Your task to perform on an android device: Add "lg ultragear" to the cart on bestbuy, then select checkout. Image 0: 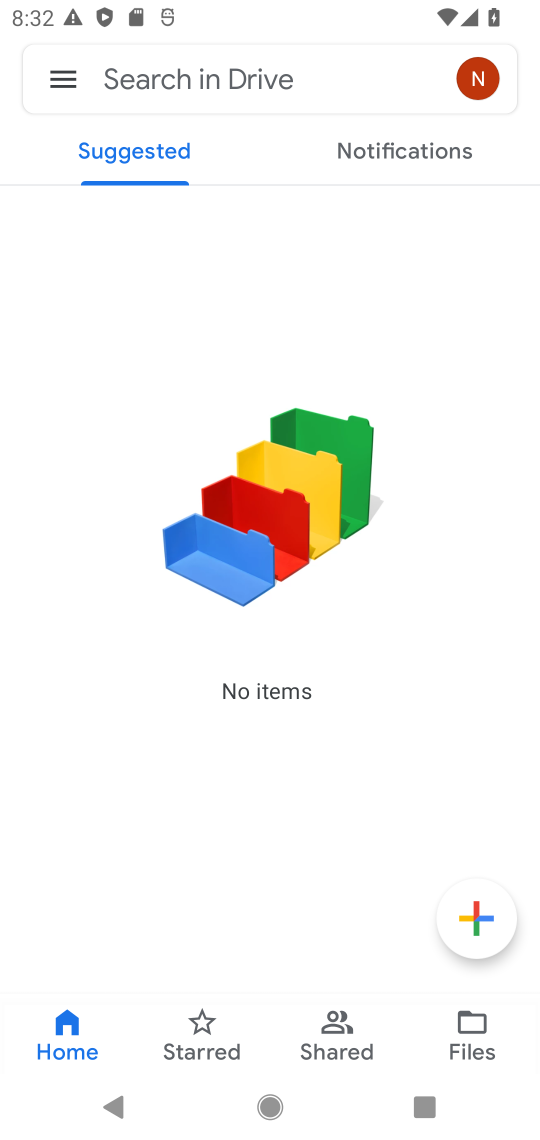
Step 0: press home button
Your task to perform on an android device: Add "lg ultragear" to the cart on bestbuy, then select checkout. Image 1: 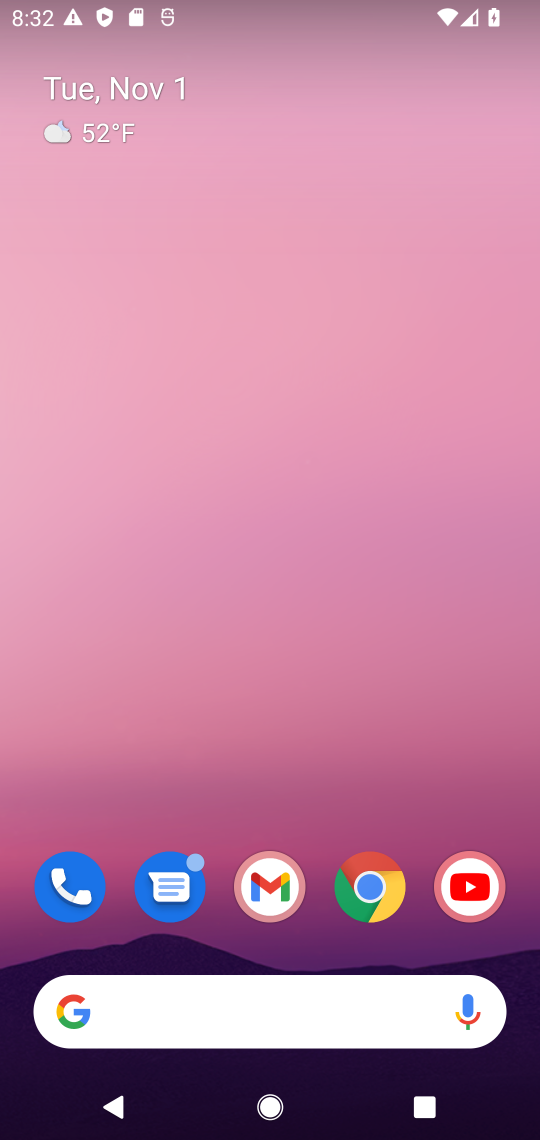
Step 1: drag from (177, 970) to (169, 440)
Your task to perform on an android device: Add "lg ultragear" to the cart on bestbuy, then select checkout. Image 2: 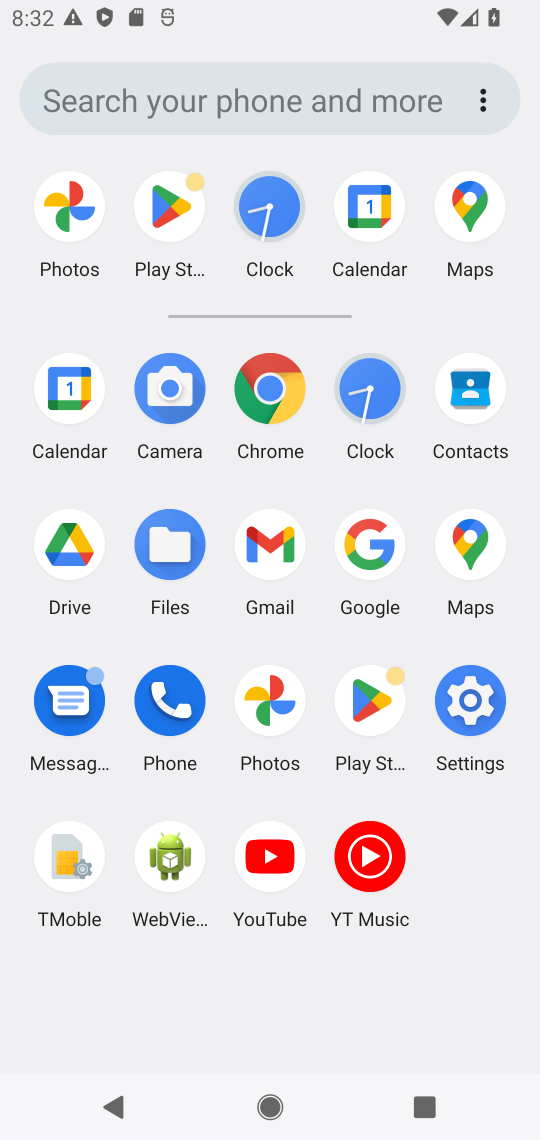
Step 2: click (360, 535)
Your task to perform on an android device: Add "lg ultragear" to the cart on bestbuy, then select checkout. Image 3: 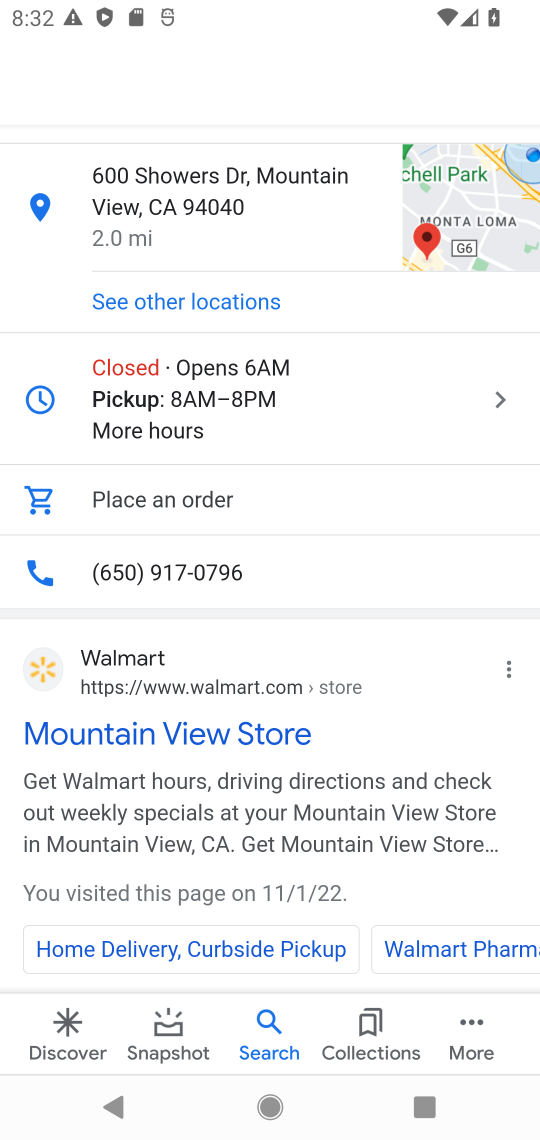
Step 3: drag from (180, 418) to (169, 1025)
Your task to perform on an android device: Add "lg ultragear" to the cart on bestbuy, then select checkout. Image 4: 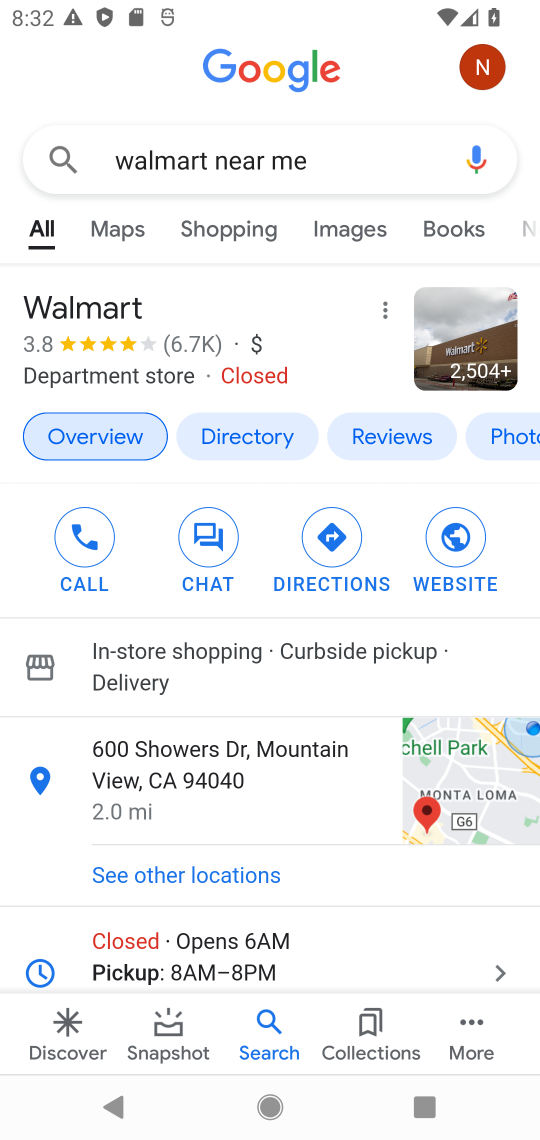
Step 4: click (198, 162)
Your task to perform on an android device: Add "lg ultragear" to the cart on bestbuy, then select checkout. Image 5: 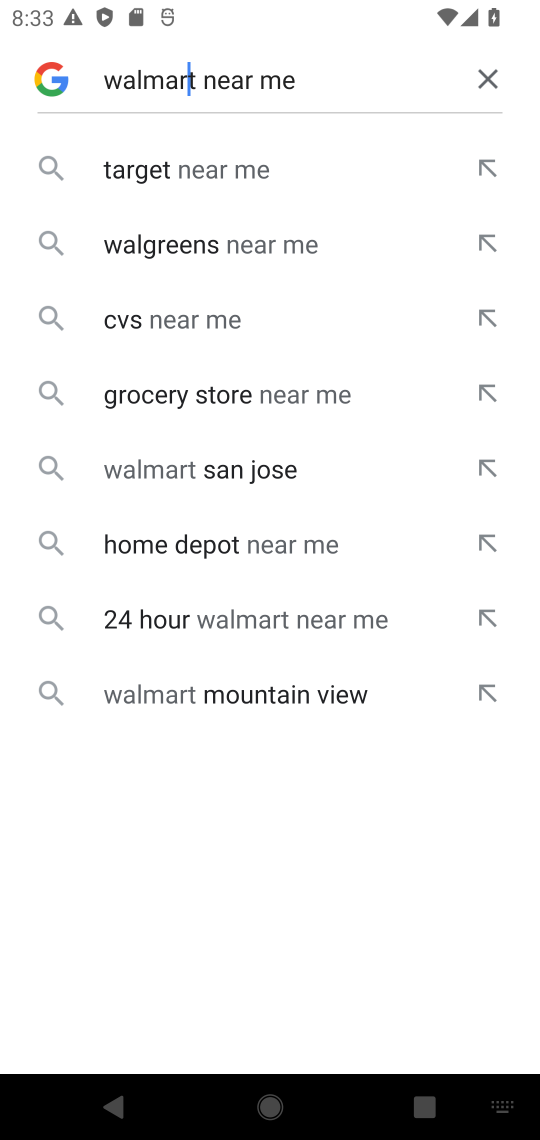
Step 5: click (475, 81)
Your task to perform on an android device: Add "lg ultragear" to the cart on bestbuy, then select checkout. Image 6: 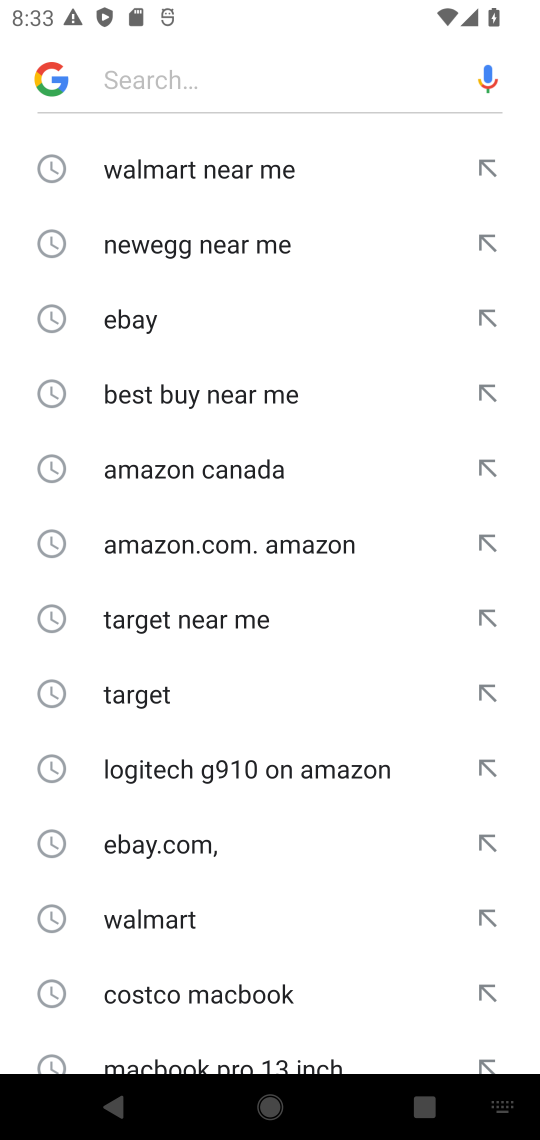
Step 6: click (204, 67)
Your task to perform on an android device: Add "lg ultragear" to the cart on bestbuy, then select checkout. Image 7: 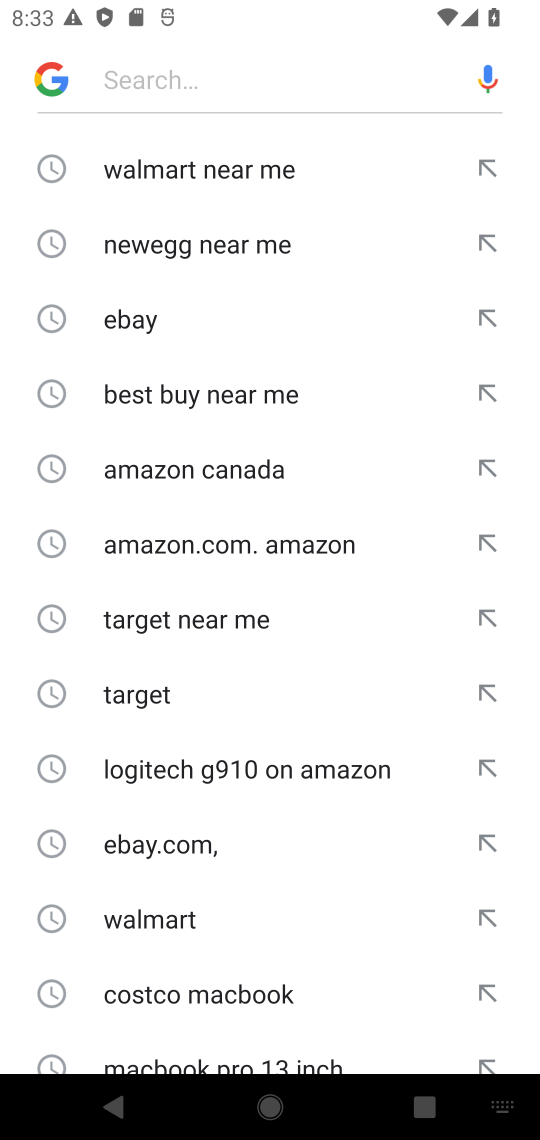
Step 7: type "bestbuy "
Your task to perform on an android device: Add "lg ultragear" to the cart on bestbuy, then select checkout. Image 8: 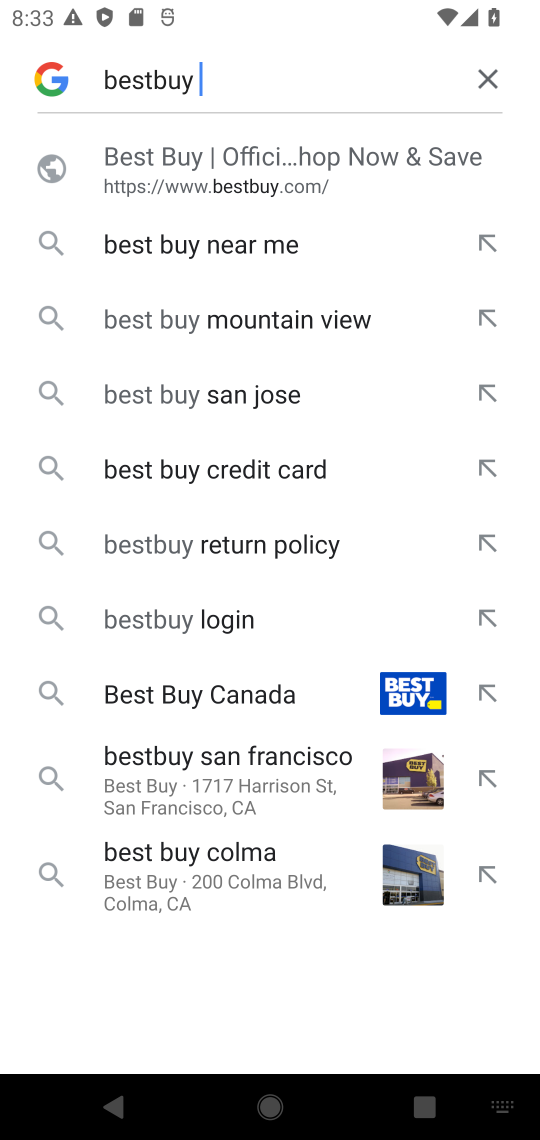
Step 8: click (235, 141)
Your task to perform on an android device: Add "lg ultragear" to the cart on bestbuy, then select checkout. Image 9: 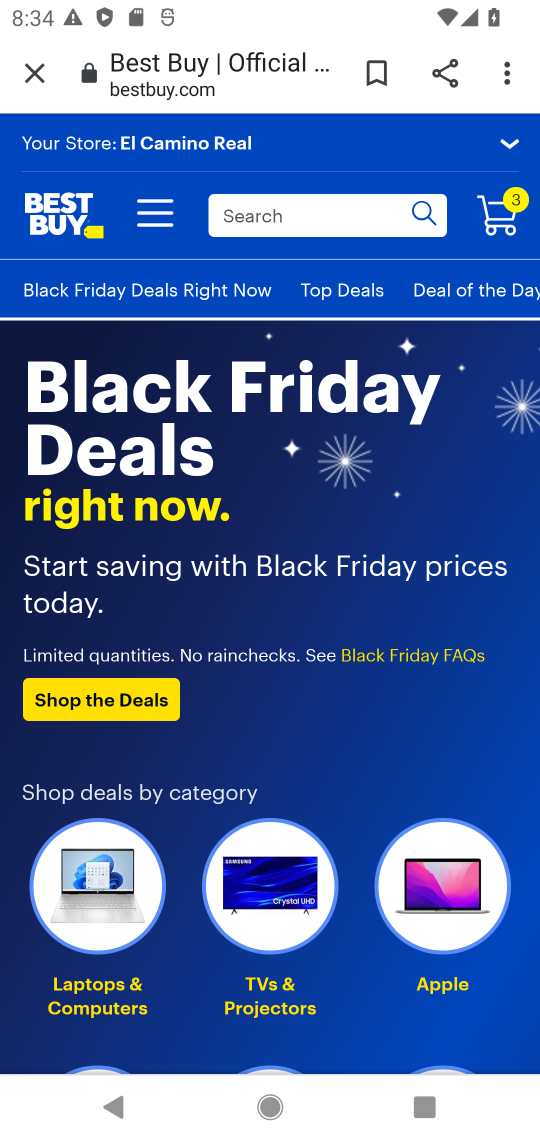
Step 9: click (260, 214)
Your task to perform on an android device: Add "lg ultragear" to the cart on bestbuy, then select checkout. Image 10: 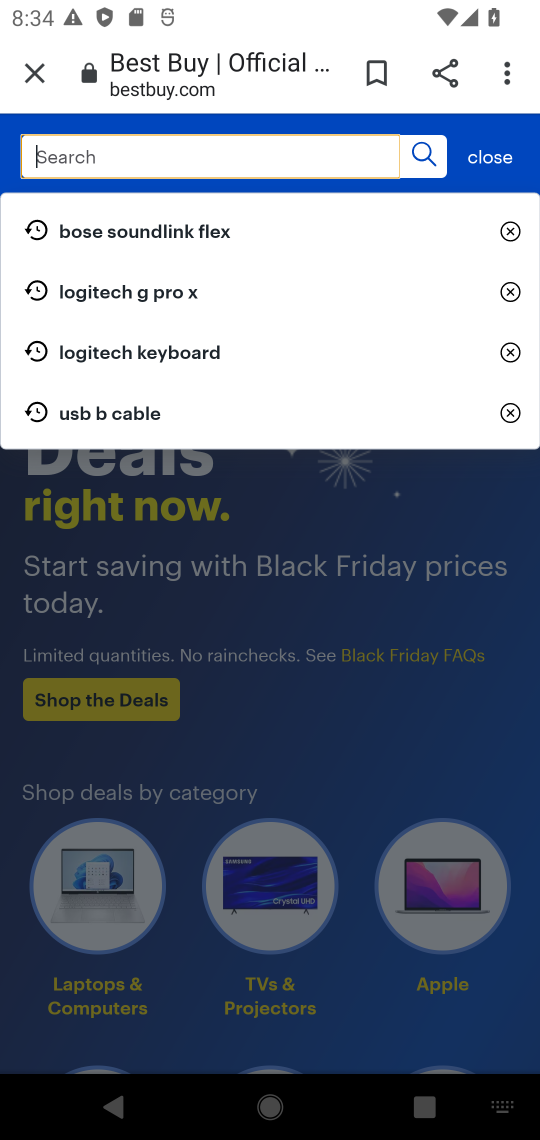
Step 10: click (195, 144)
Your task to perform on an android device: Add "lg ultragear" to the cart on bestbuy, then select checkout. Image 11: 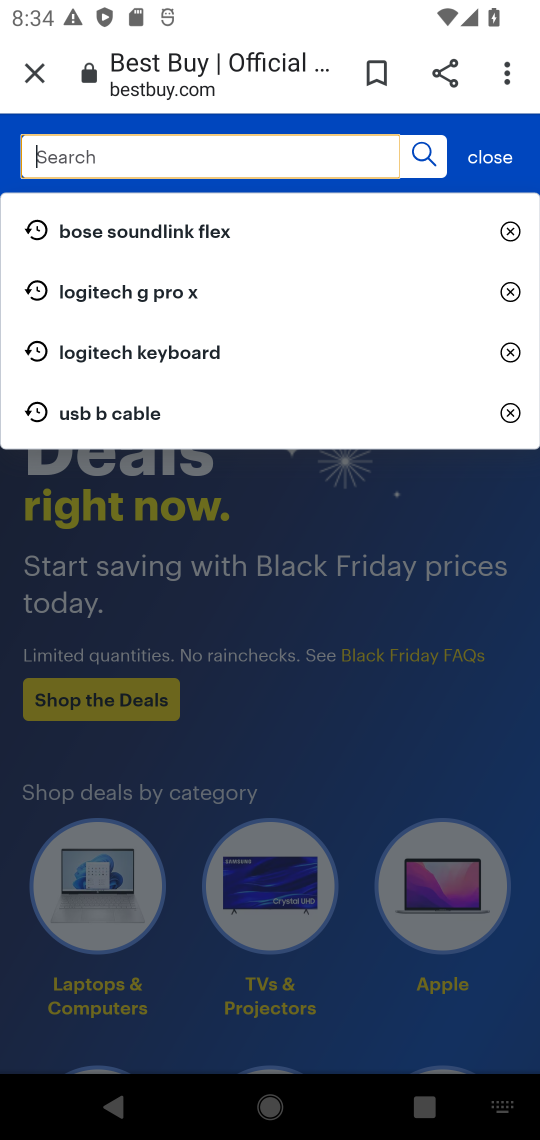
Step 11: type "lg ultragear "
Your task to perform on an android device: Add "lg ultragear" to the cart on bestbuy, then select checkout. Image 12: 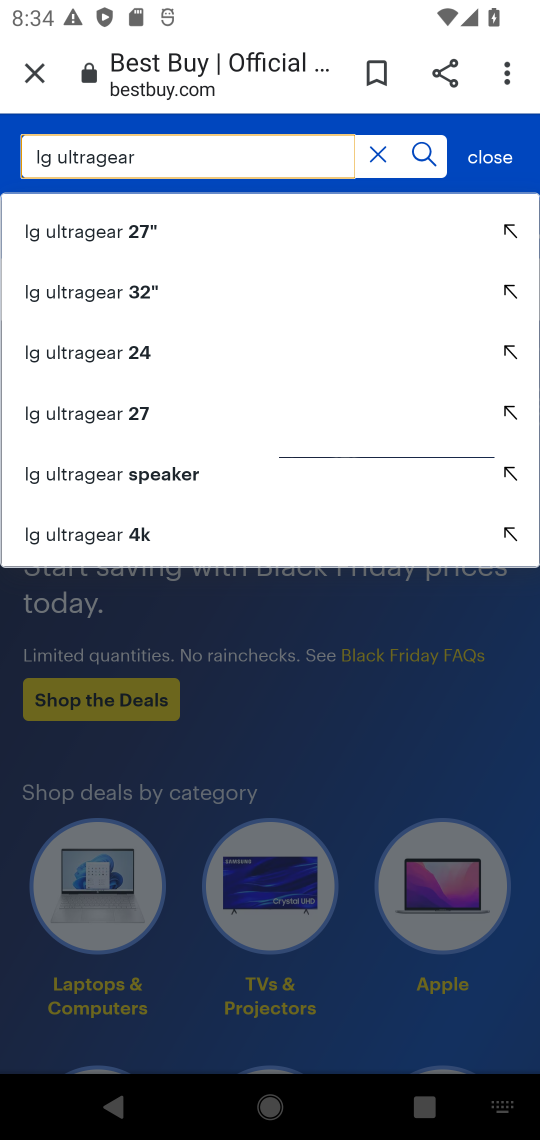
Step 12: click (119, 218)
Your task to perform on an android device: Add "lg ultragear" to the cart on bestbuy, then select checkout. Image 13: 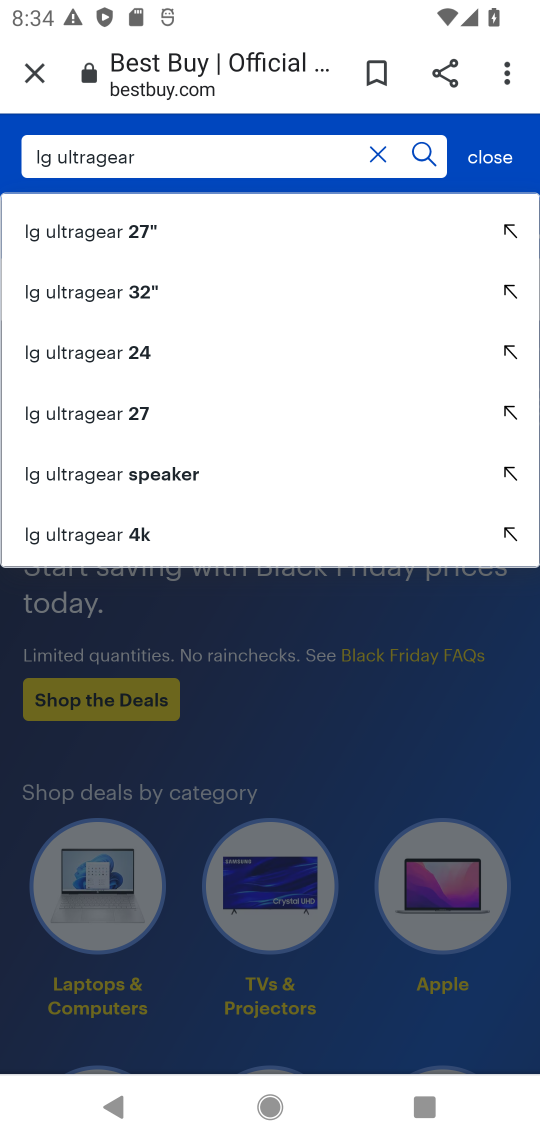
Step 13: click (119, 234)
Your task to perform on an android device: Add "lg ultragear" to the cart on bestbuy, then select checkout. Image 14: 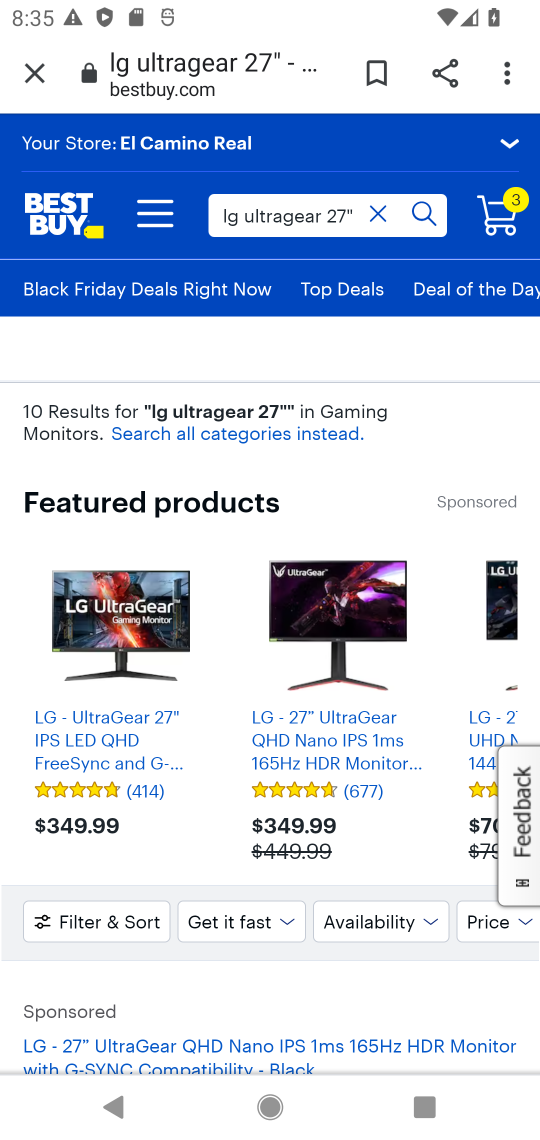
Step 14: drag from (254, 907) to (285, 434)
Your task to perform on an android device: Add "lg ultragear" to the cart on bestbuy, then select checkout. Image 15: 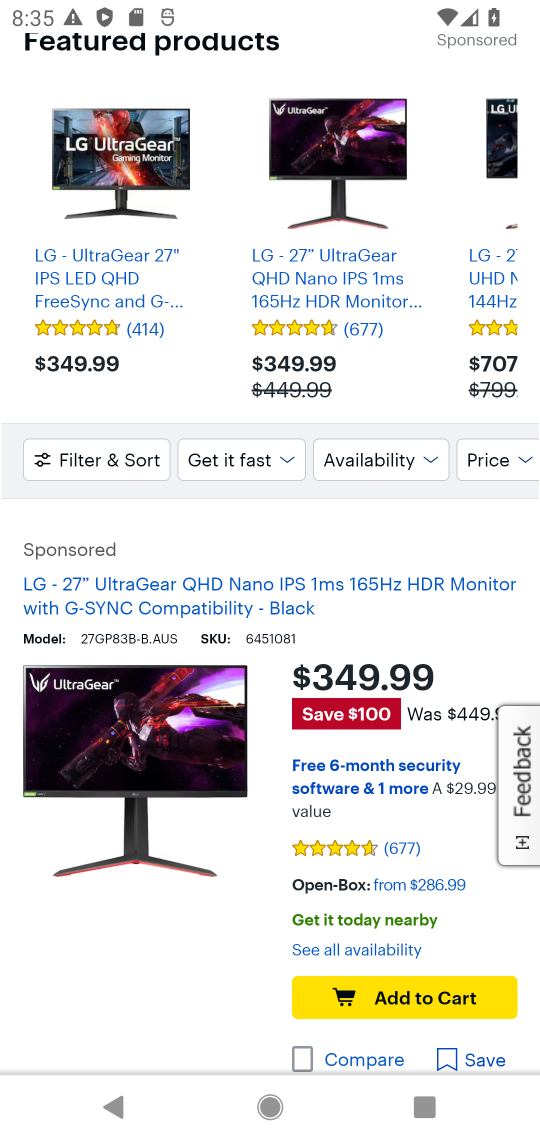
Step 15: click (396, 995)
Your task to perform on an android device: Add "lg ultragear" to the cart on bestbuy, then select checkout. Image 16: 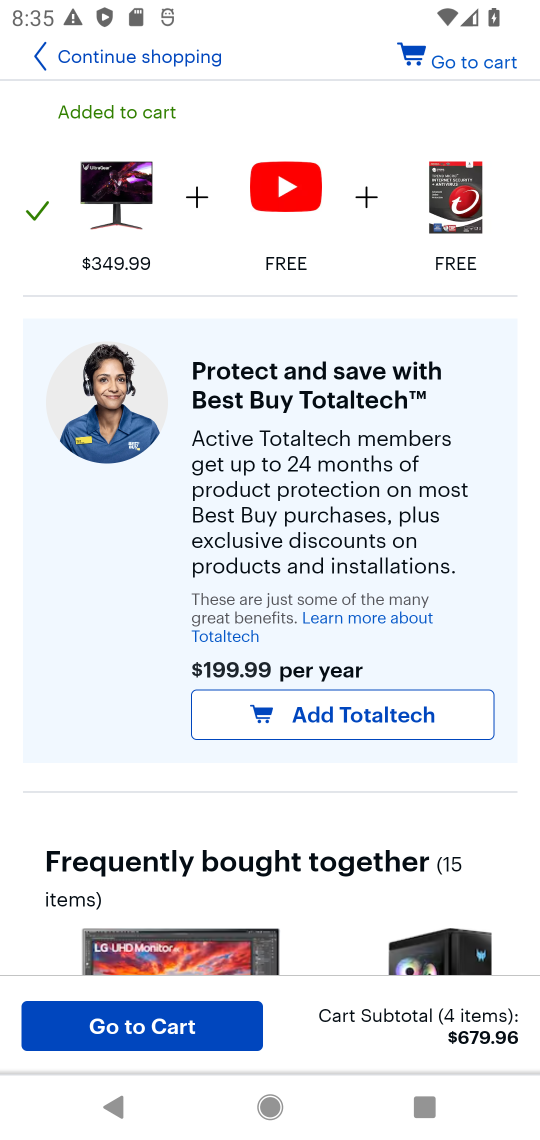
Step 16: task complete